Your task to perform on an android device: move an email to a new category in the gmail app Image 0: 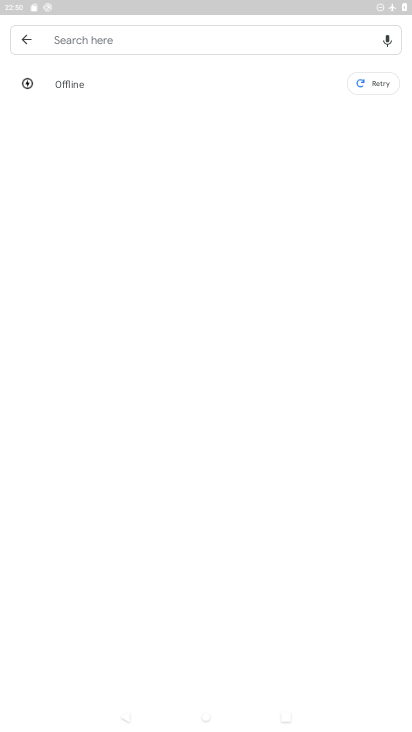
Step 0: press home button
Your task to perform on an android device: move an email to a new category in the gmail app Image 1: 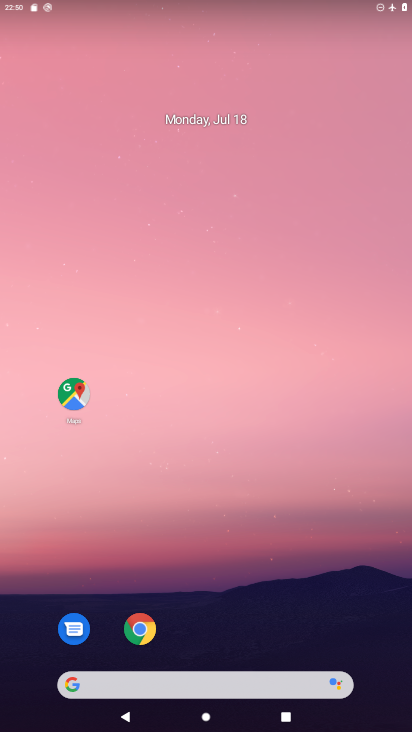
Step 1: drag from (300, 639) to (228, 81)
Your task to perform on an android device: move an email to a new category in the gmail app Image 2: 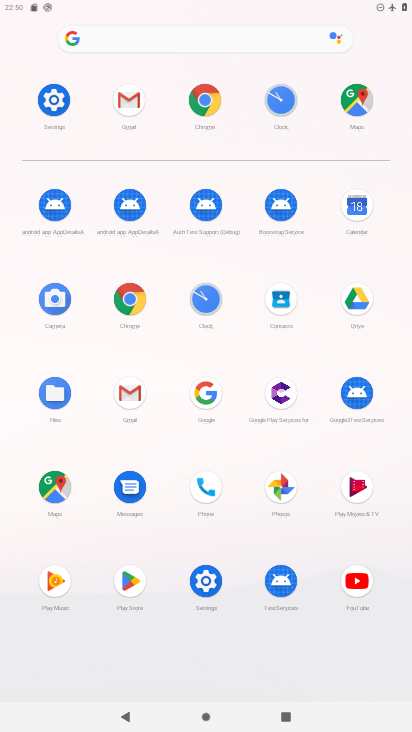
Step 2: click (129, 110)
Your task to perform on an android device: move an email to a new category in the gmail app Image 3: 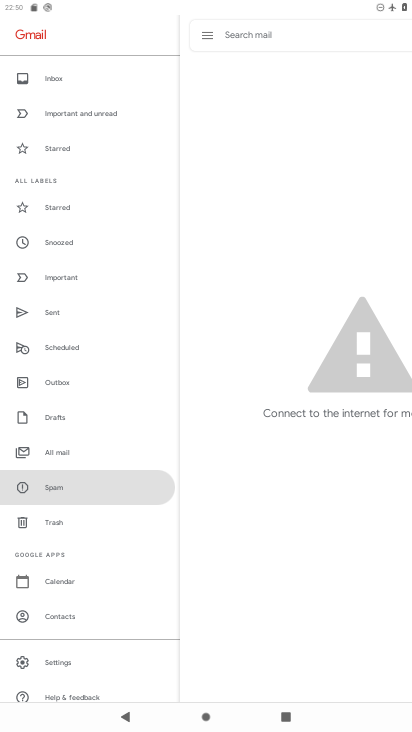
Step 3: click (57, 78)
Your task to perform on an android device: move an email to a new category in the gmail app Image 4: 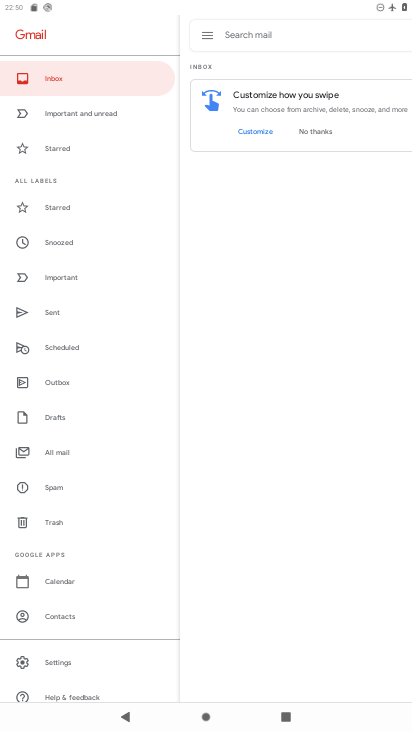
Step 4: click (343, 91)
Your task to perform on an android device: move an email to a new category in the gmail app Image 5: 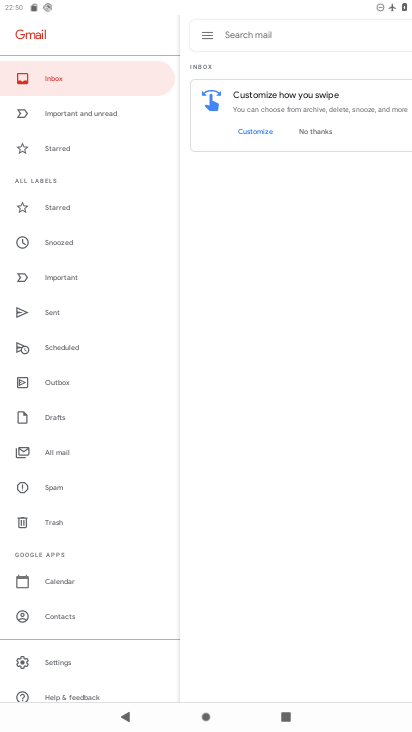
Step 5: click (81, 126)
Your task to perform on an android device: move an email to a new category in the gmail app Image 6: 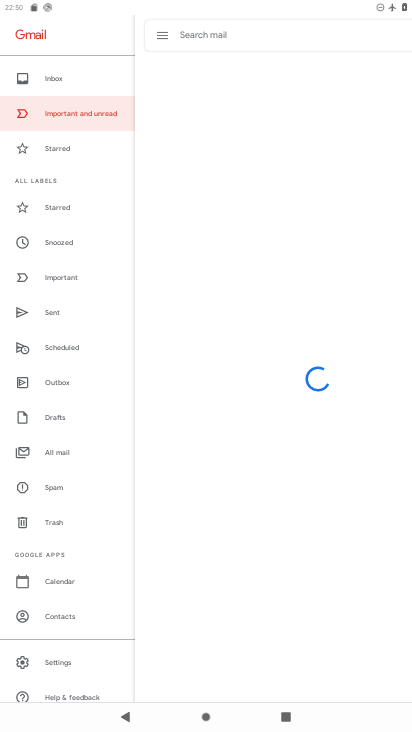
Step 6: click (62, 198)
Your task to perform on an android device: move an email to a new category in the gmail app Image 7: 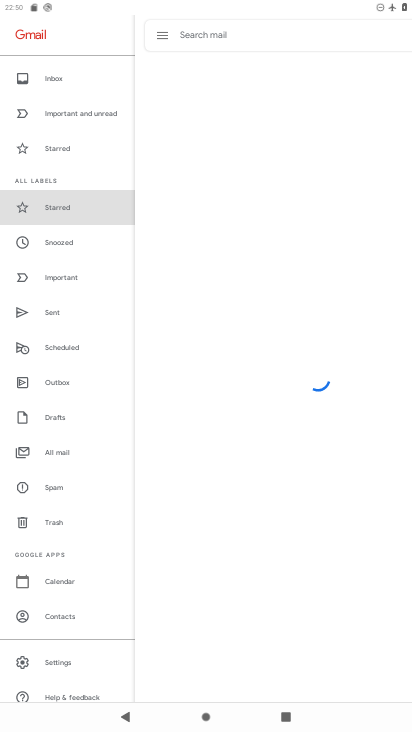
Step 7: click (56, 455)
Your task to perform on an android device: move an email to a new category in the gmail app Image 8: 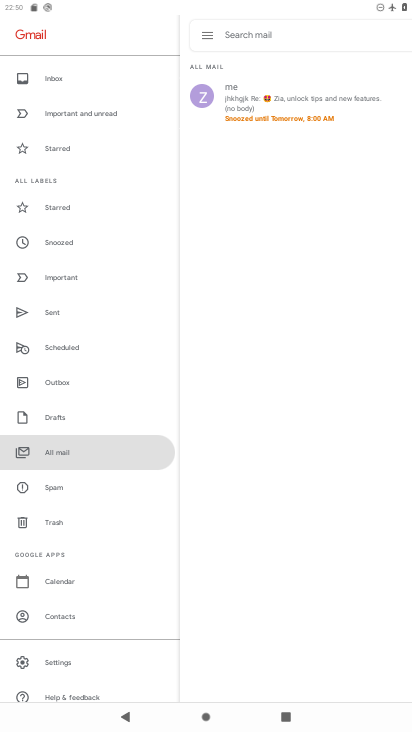
Step 8: click (303, 107)
Your task to perform on an android device: move an email to a new category in the gmail app Image 9: 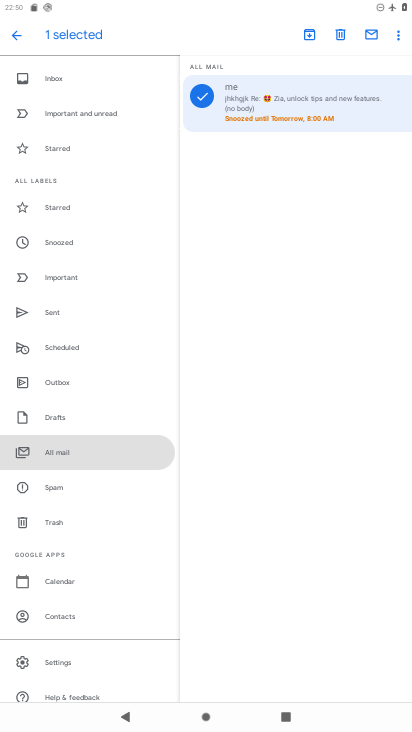
Step 9: click (400, 34)
Your task to perform on an android device: move an email to a new category in the gmail app Image 10: 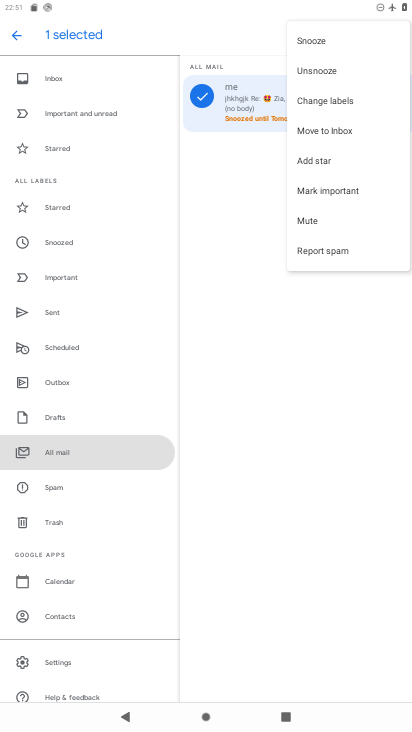
Step 10: click (331, 132)
Your task to perform on an android device: move an email to a new category in the gmail app Image 11: 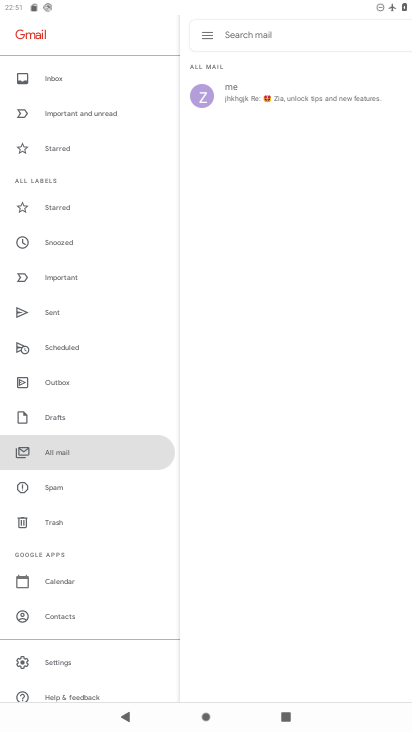
Step 11: task complete